Your task to perform on an android device: Open Google Chrome and open the bookmarks view Image 0: 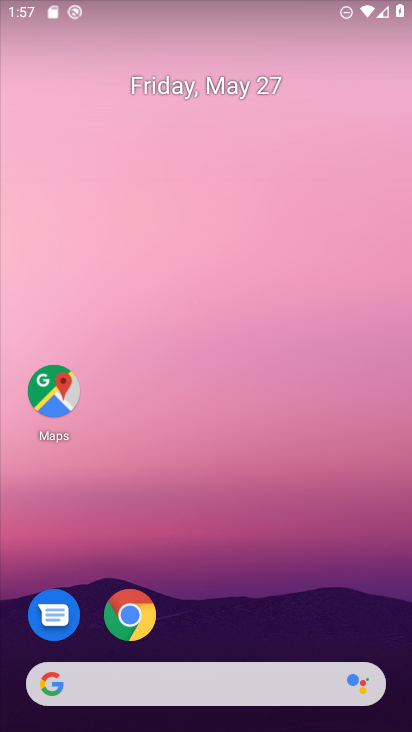
Step 0: drag from (278, 542) to (269, 217)
Your task to perform on an android device: Open Google Chrome and open the bookmarks view Image 1: 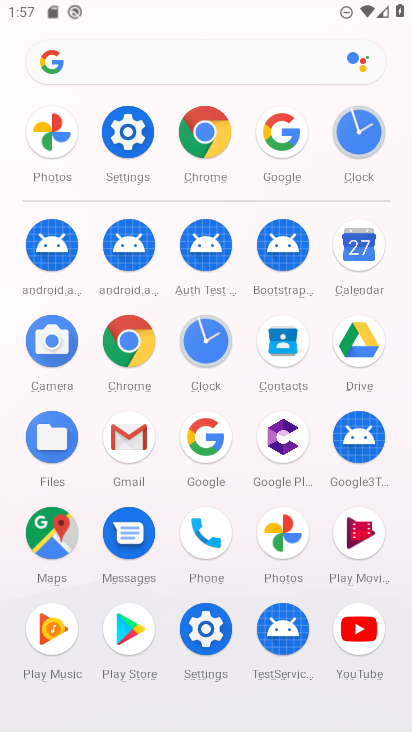
Step 1: click (121, 355)
Your task to perform on an android device: Open Google Chrome and open the bookmarks view Image 2: 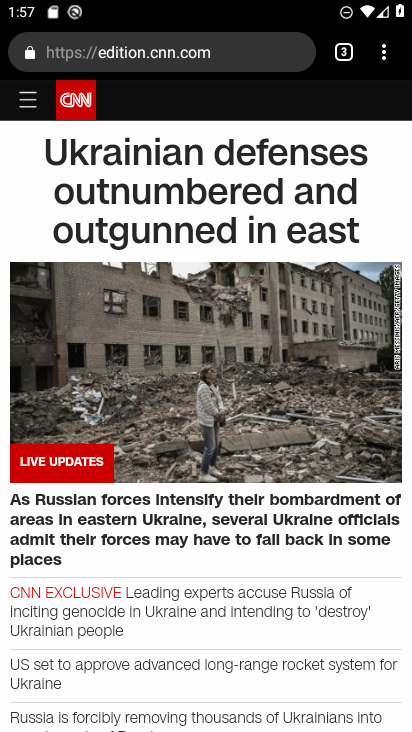
Step 2: click (388, 53)
Your task to perform on an android device: Open Google Chrome and open the bookmarks view Image 3: 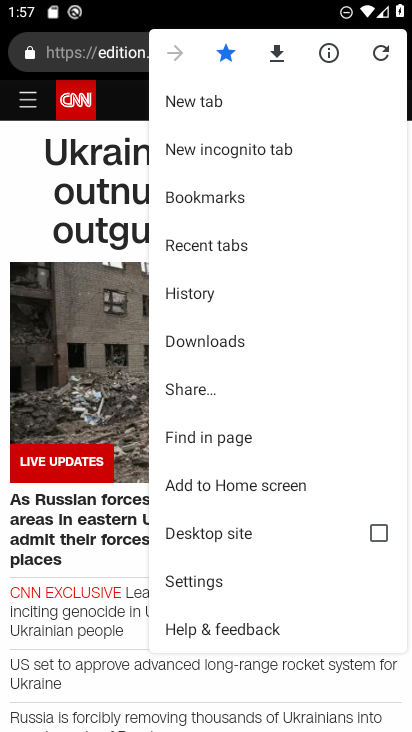
Step 3: click (211, 199)
Your task to perform on an android device: Open Google Chrome and open the bookmarks view Image 4: 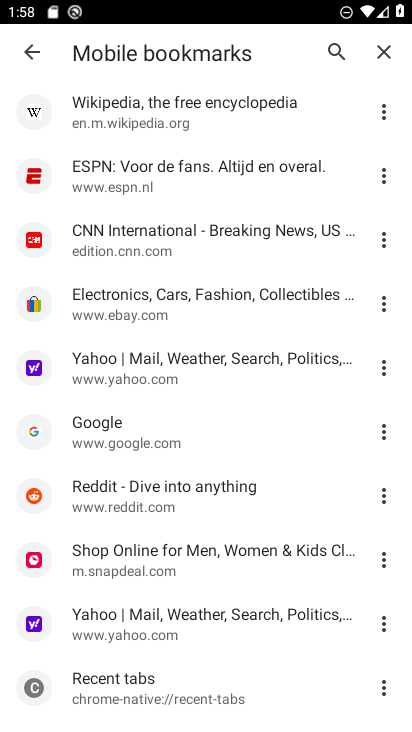
Step 4: drag from (236, 138) to (268, 530)
Your task to perform on an android device: Open Google Chrome and open the bookmarks view Image 5: 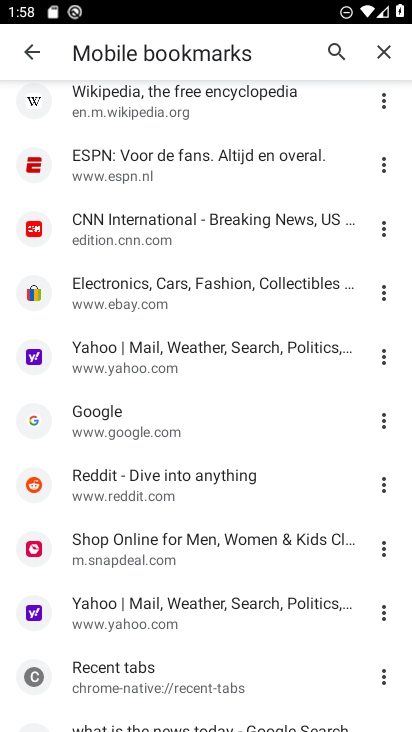
Step 5: click (221, 250)
Your task to perform on an android device: Open Google Chrome and open the bookmarks view Image 6: 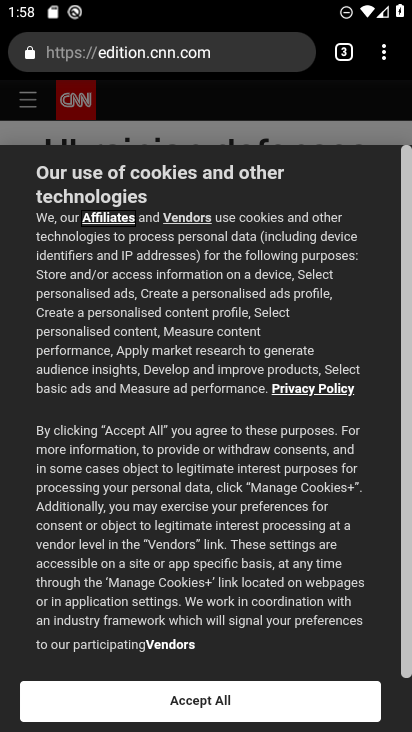
Step 6: task complete